Your task to perform on an android device: Search for Mexican restaurants on Maps Image 0: 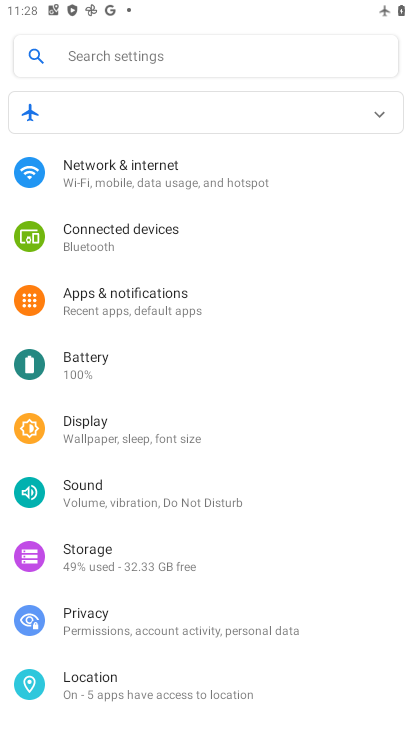
Step 0: press home button
Your task to perform on an android device: Search for Mexican restaurants on Maps Image 1: 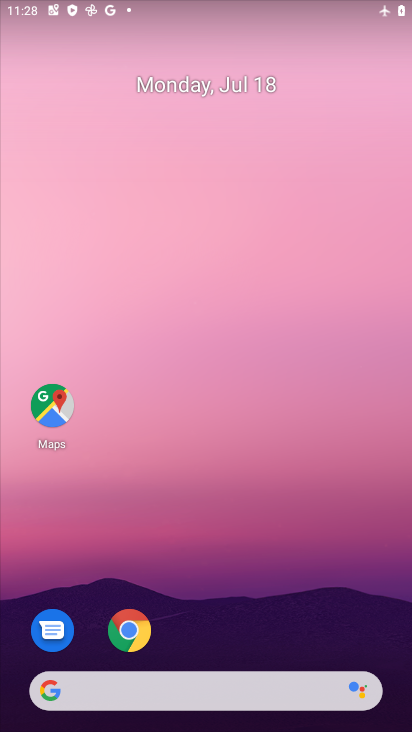
Step 1: drag from (278, 593) to (245, 135)
Your task to perform on an android device: Search for Mexican restaurants on Maps Image 2: 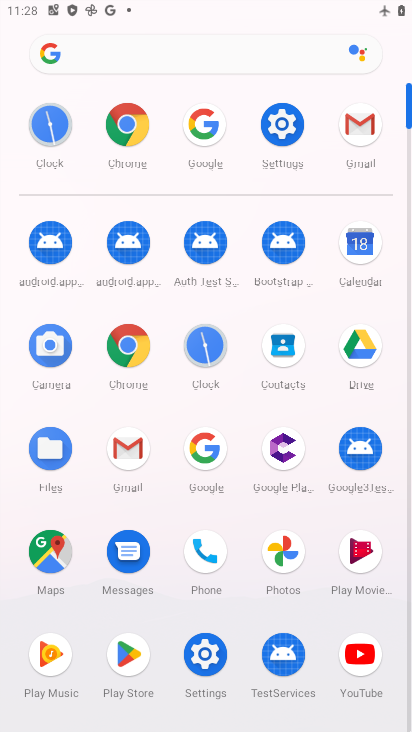
Step 2: click (46, 554)
Your task to perform on an android device: Search for Mexican restaurants on Maps Image 3: 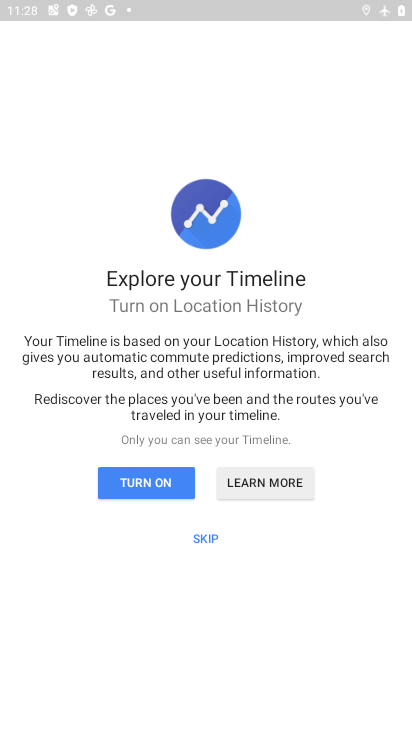
Step 3: press back button
Your task to perform on an android device: Search for Mexican restaurants on Maps Image 4: 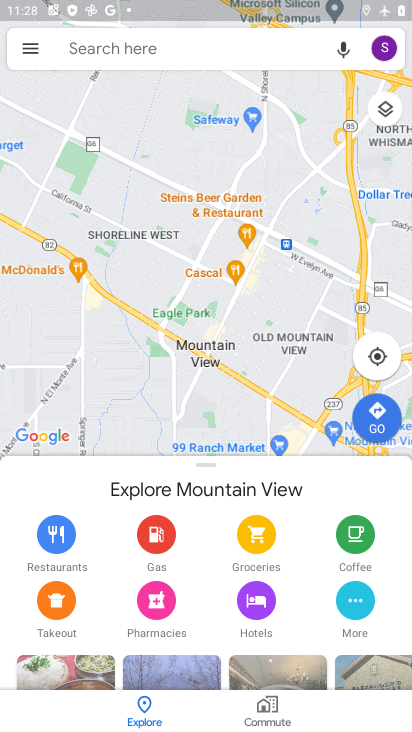
Step 4: press back button
Your task to perform on an android device: Search for Mexican restaurants on Maps Image 5: 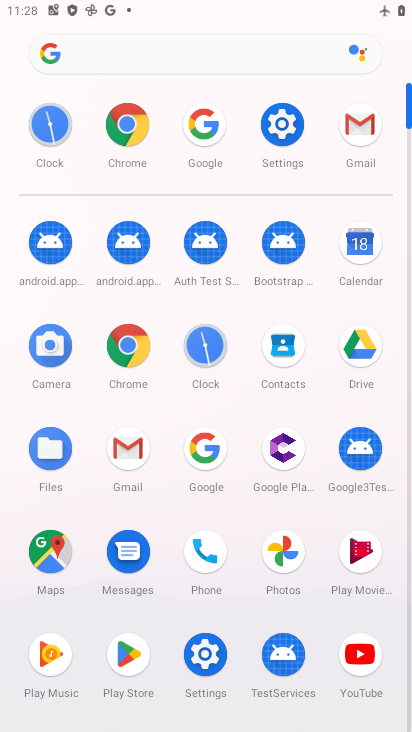
Step 5: click (55, 559)
Your task to perform on an android device: Search for Mexican restaurants on Maps Image 6: 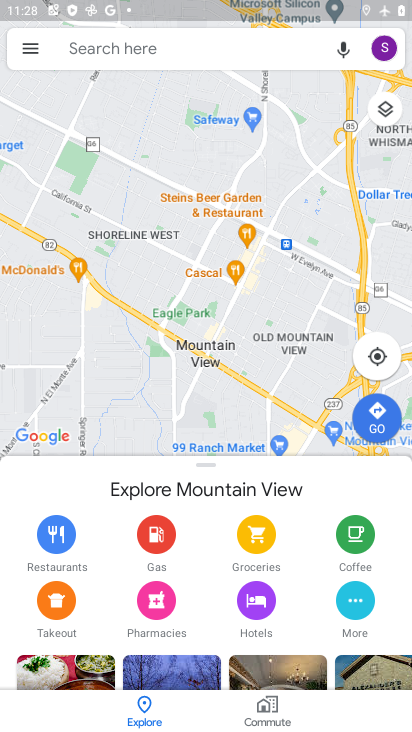
Step 6: click (148, 44)
Your task to perform on an android device: Search for Mexican restaurants on Maps Image 7: 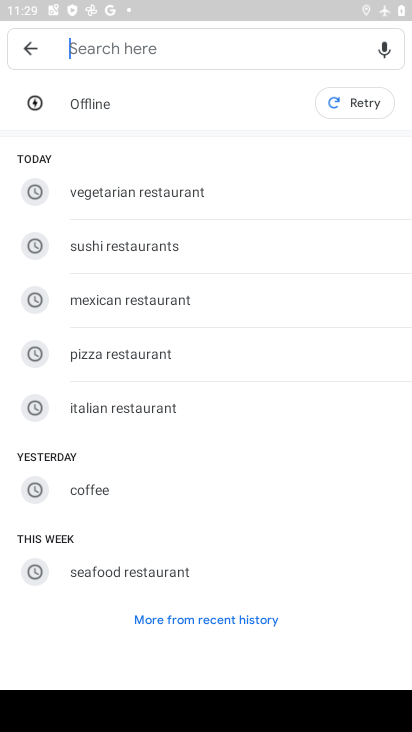
Step 7: click (176, 309)
Your task to perform on an android device: Search for Mexican restaurants on Maps Image 8: 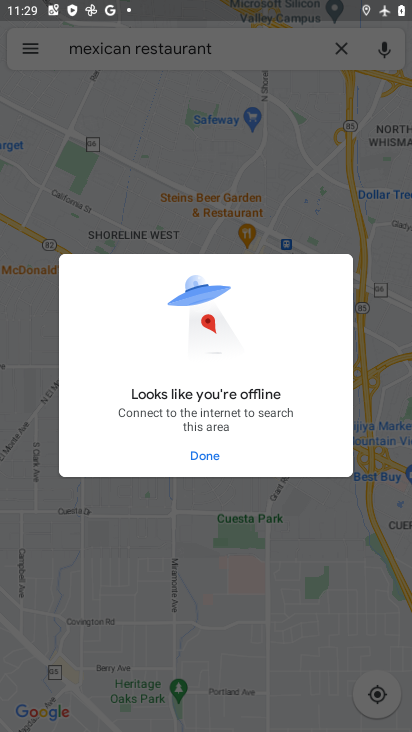
Step 8: task complete